Your task to perform on an android device: check the backup settings in the google photos Image 0: 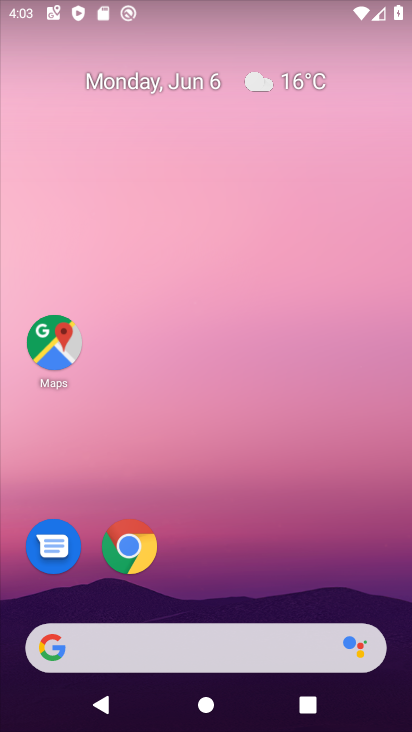
Step 0: drag from (318, 592) to (318, 43)
Your task to perform on an android device: check the backup settings in the google photos Image 1: 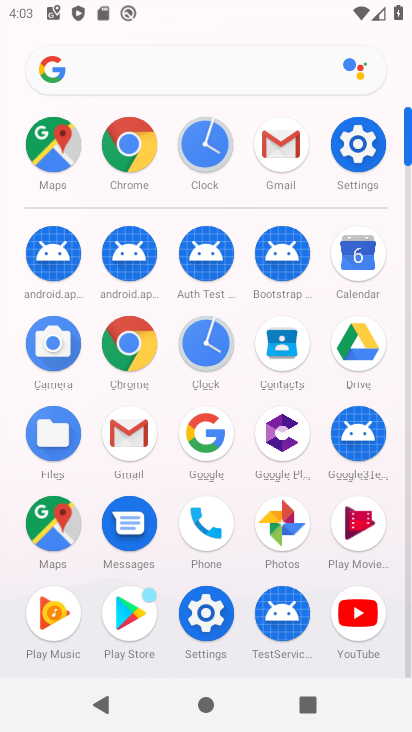
Step 1: click (288, 555)
Your task to perform on an android device: check the backup settings in the google photos Image 2: 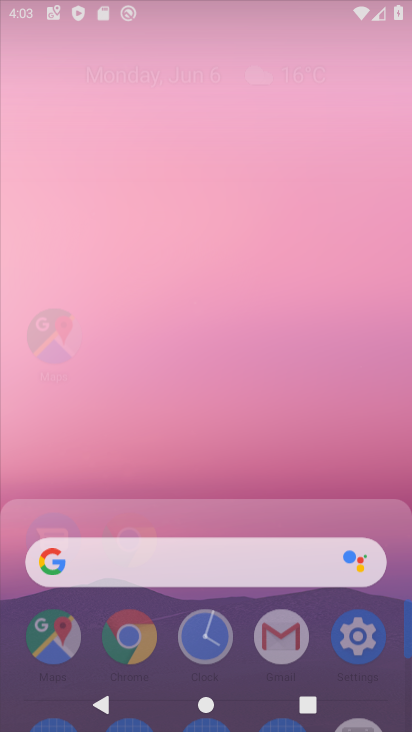
Step 2: click (285, 529)
Your task to perform on an android device: check the backup settings in the google photos Image 3: 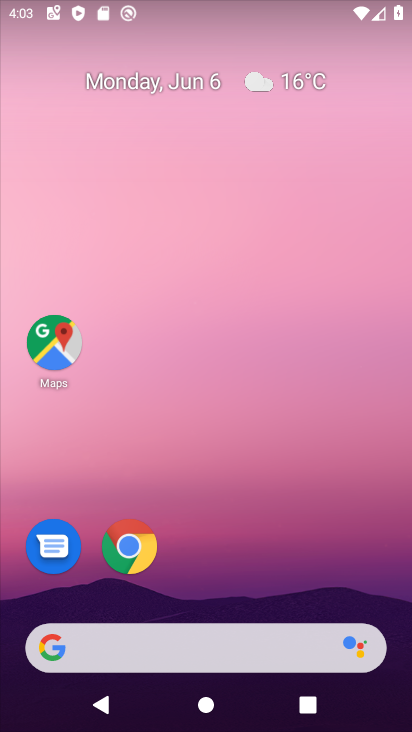
Step 3: drag from (338, 552) to (363, 0)
Your task to perform on an android device: check the backup settings in the google photos Image 4: 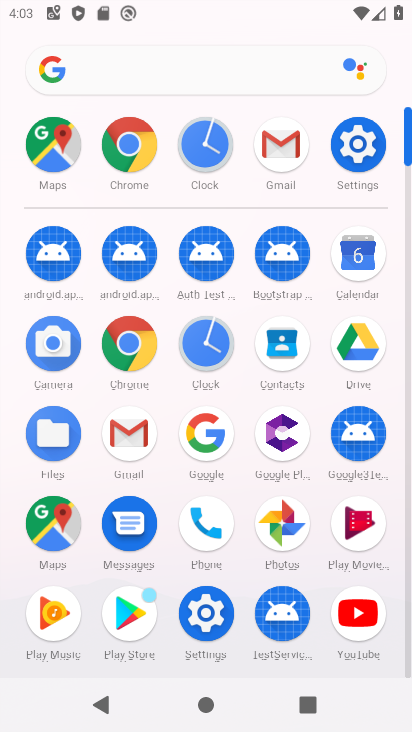
Step 4: click (270, 523)
Your task to perform on an android device: check the backup settings in the google photos Image 5: 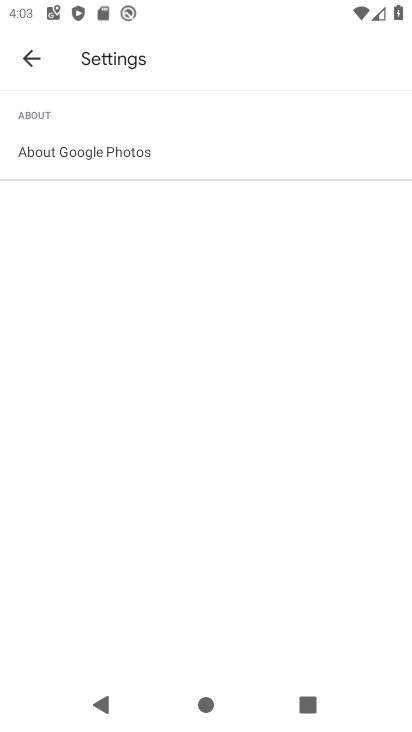
Step 5: click (28, 69)
Your task to perform on an android device: check the backup settings in the google photos Image 6: 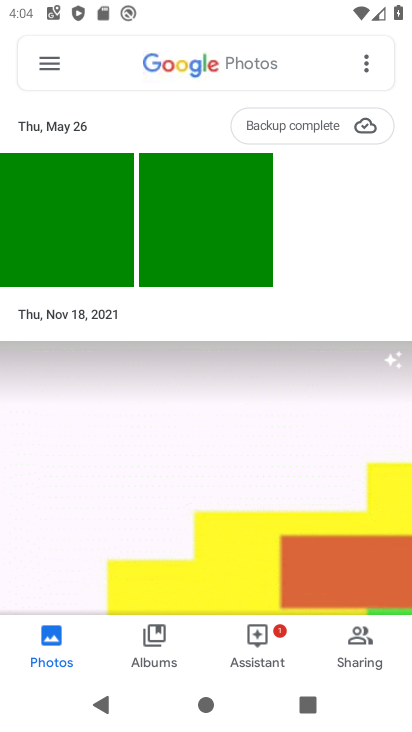
Step 6: click (49, 71)
Your task to perform on an android device: check the backup settings in the google photos Image 7: 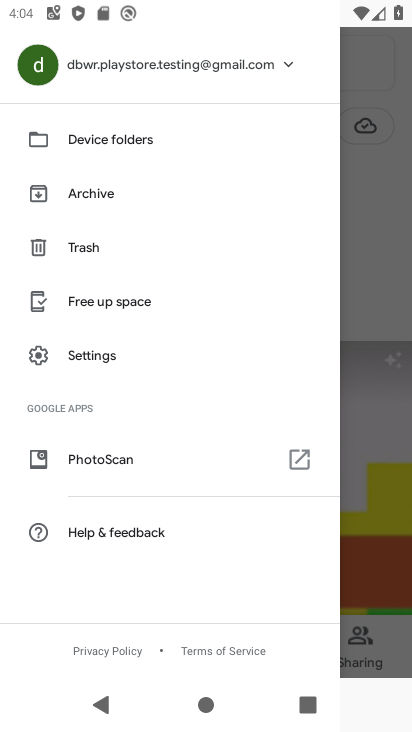
Step 7: click (120, 355)
Your task to perform on an android device: check the backup settings in the google photos Image 8: 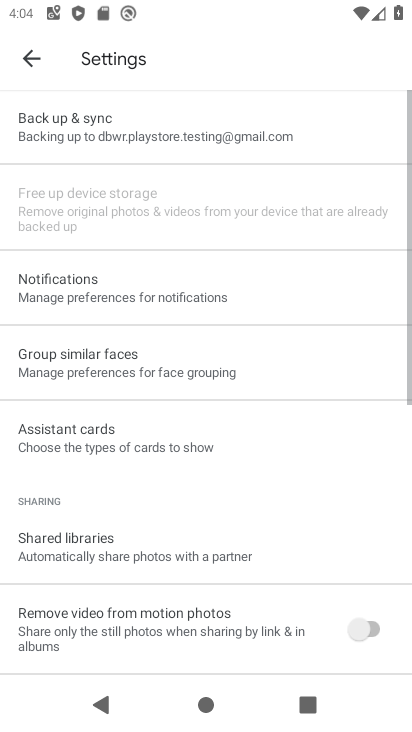
Step 8: click (109, 133)
Your task to perform on an android device: check the backup settings in the google photos Image 9: 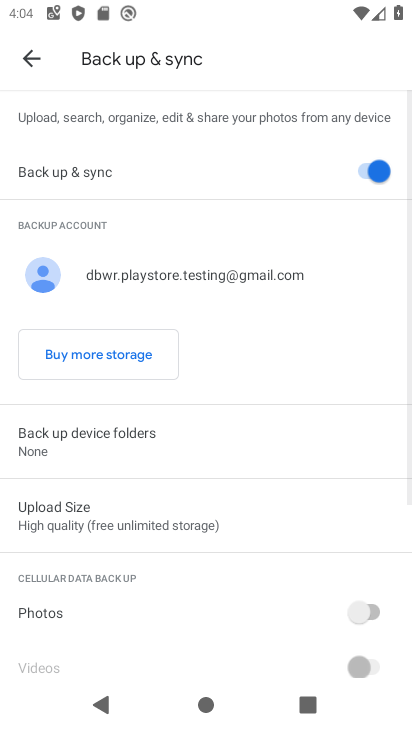
Step 9: task complete